Your task to perform on an android device: Open Wikipedia Image 0: 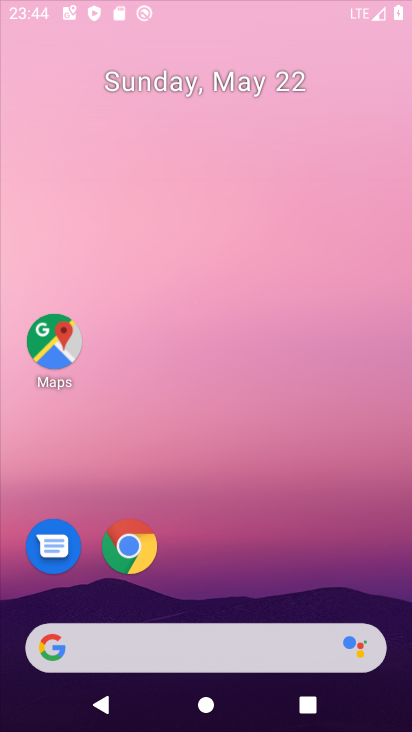
Step 0: click (202, 345)
Your task to perform on an android device: Open Wikipedia Image 1: 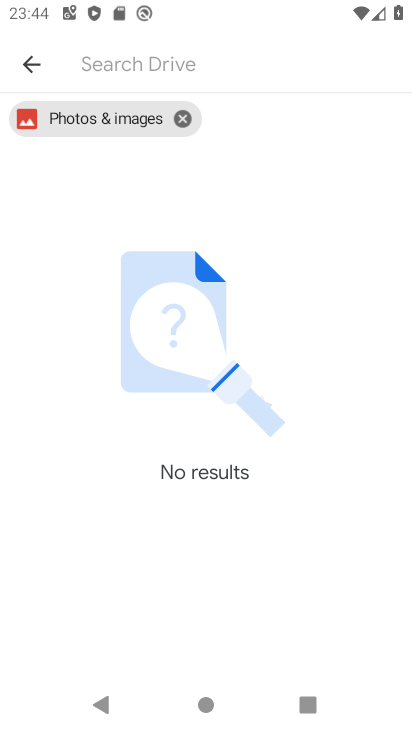
Step 1: click (40, 64)
Your task to perform on an android device: Open Wikipedia Image 2: 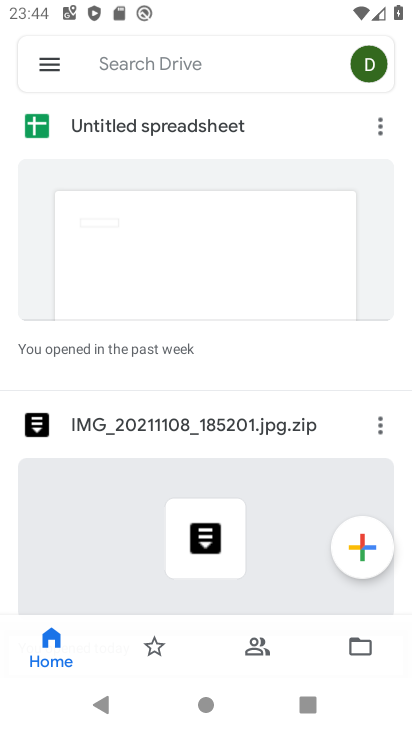
Step 2: press home button
Your task to perform on an android device: Open Wikipedia Image 3: 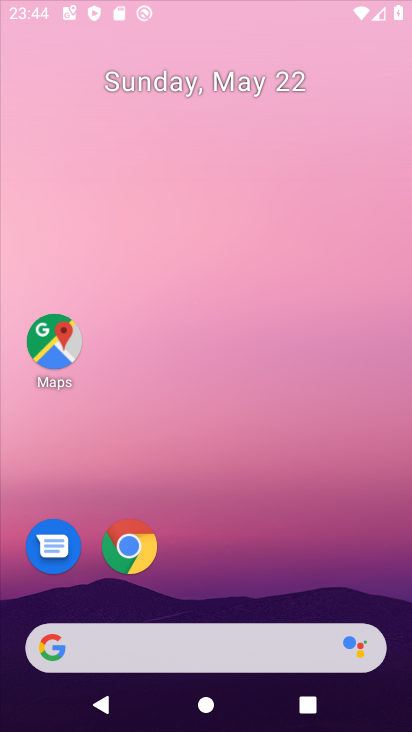
Step 3: drag from (177, 550) to (297, 21)
Your task to perform on an android device: Open Wikipedia Image 4: 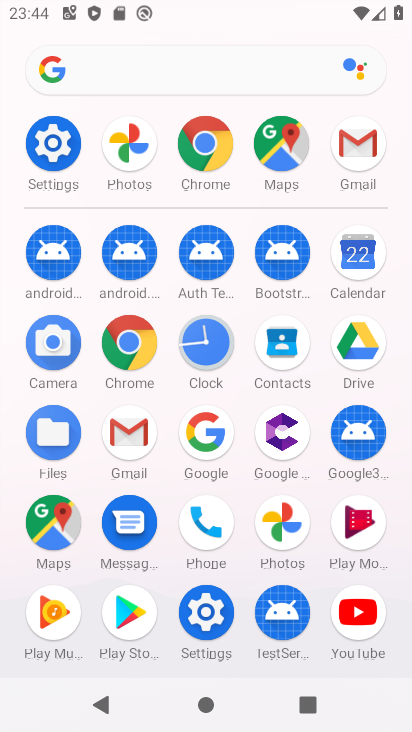
Step 4: click (132, 72)
Your task to perform on an android device: Open Wikipedia Image 5: 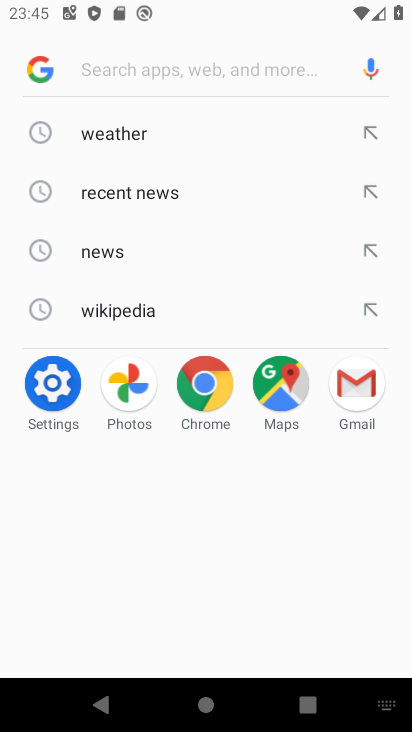
Step 5: type "wikipedia"
Your task to perform on an android device: Open Wikipedia Image 6: 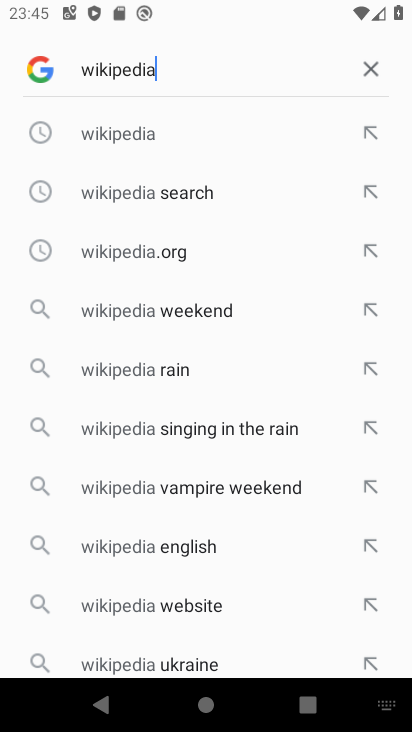
Step 6: click (158, 124)
Your task to perform on an android device: Open Wikipedia Image 7: 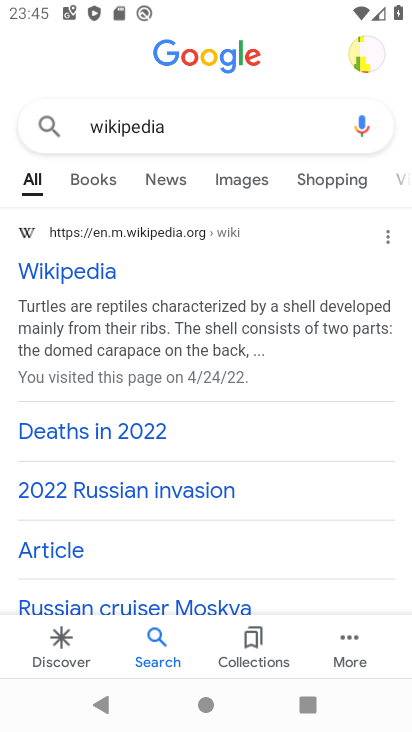
Step 7: click (67, 278)
Your task to perform on an android device: Open Wikipedia Image 8: 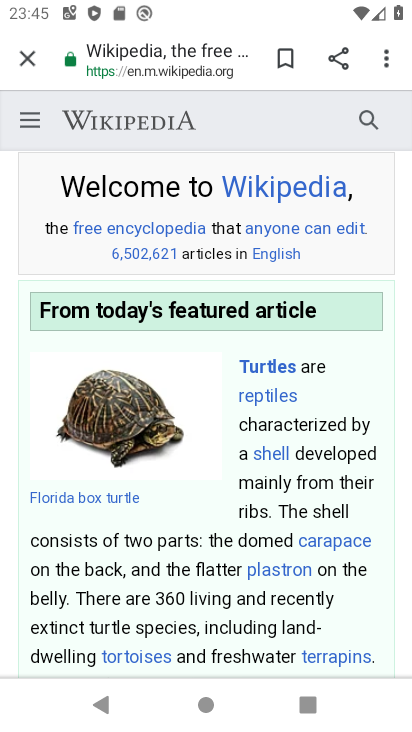
Step 8: task complete